Your task to perform on an android device: change timer sound Image 0: 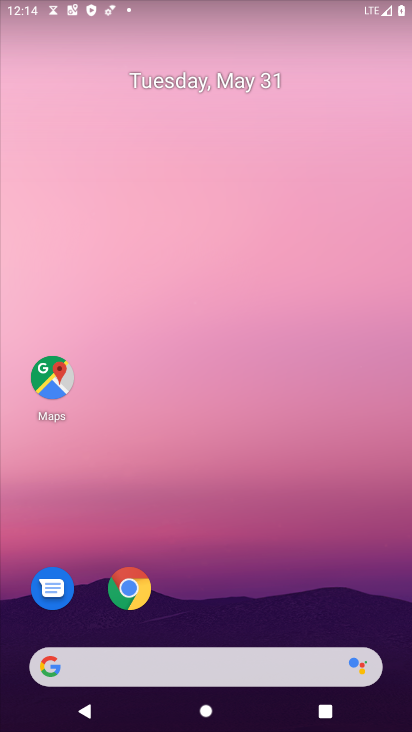
Step 0: drag from (225, 553) to (240, 61)
Your task to perform on an android device: change timer sound Image 1: 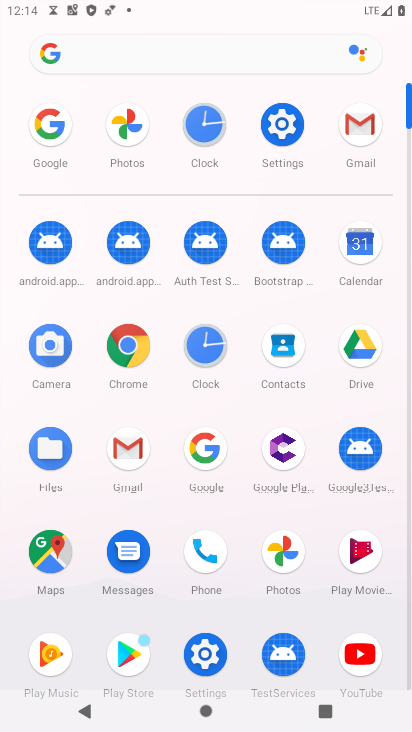
Step 1: click (199, 107)
Your task to perform on an android device: change timer sound Image 2: 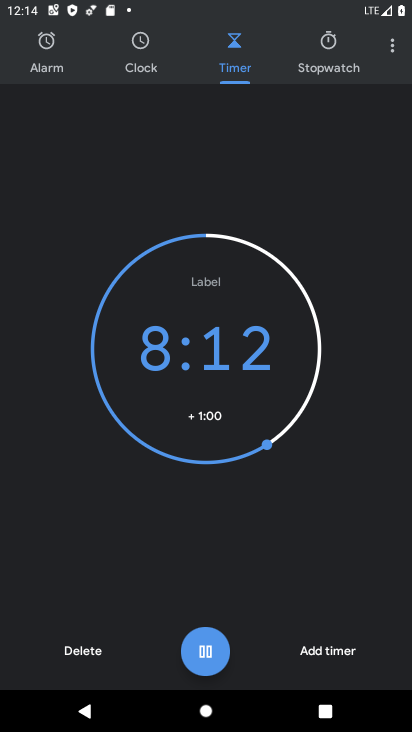
Step 2: click (393, 50)
Your task to perform on an android device: change timer sound Image 3: 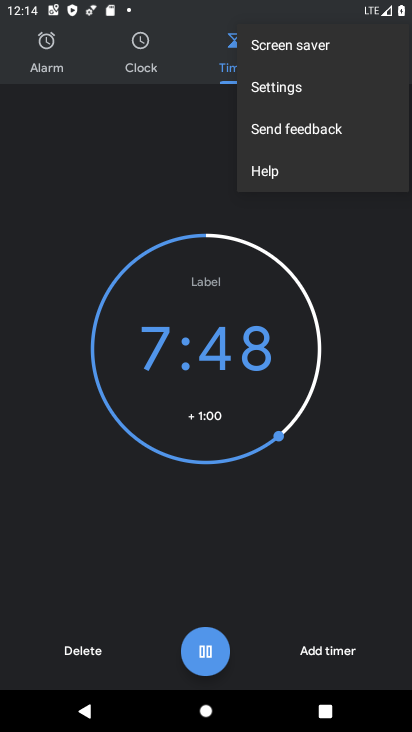
Step 3: click (321, 85)
Your task to perform on an android device: change timer sound Image 4: 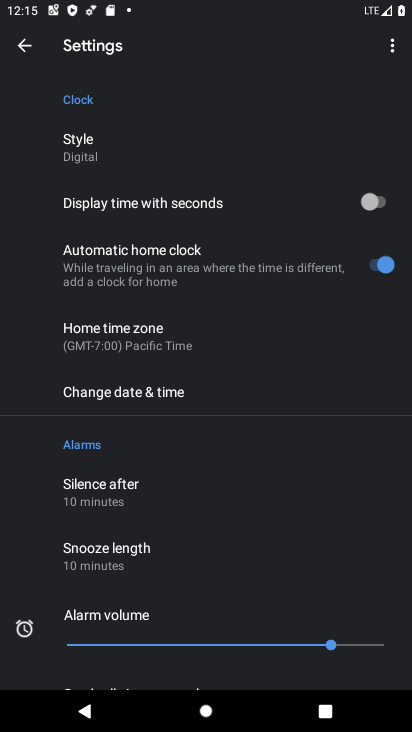
Step 4: drag from (207, 589) to (236, 128)
Your task to perform on an android device: change timer sound Image 5: 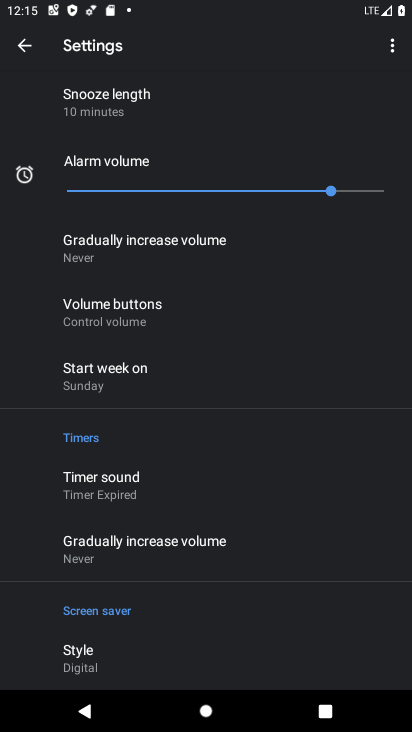
Step 5: click (133, 474)
Your task to perform on an android device: change timer sound Image 6: 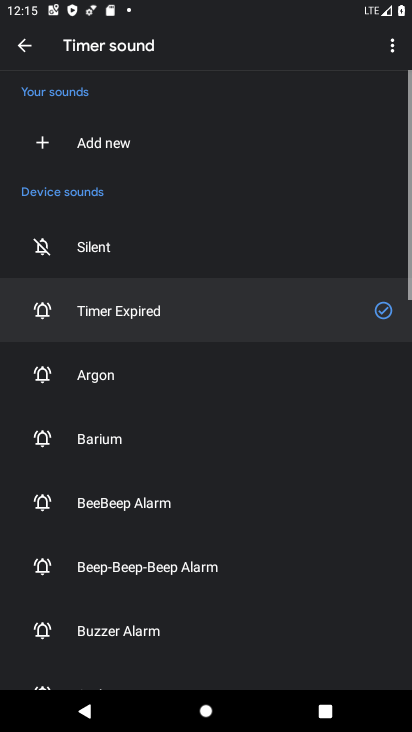
Step 6: click (152, 431)
Your task to perform on an android device: change timer sound Image 7: 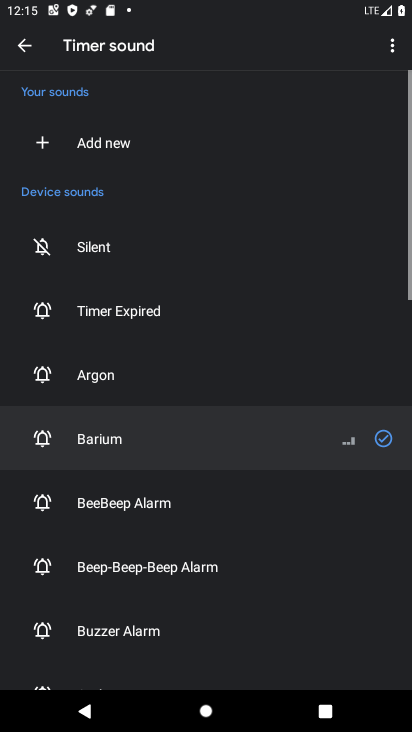
Step 7: task complete